Your task to perform on an android device: turn off javascript in the chrome app Image 0: 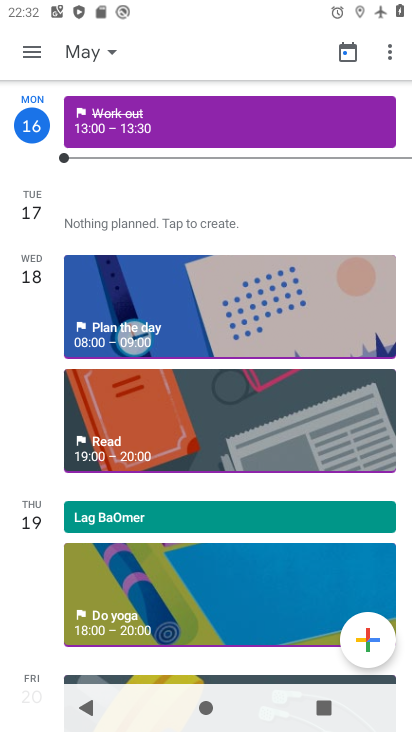
Step 0: press home button
Your task to perform on an android device: turn off javascript in the chrome app Image 1: 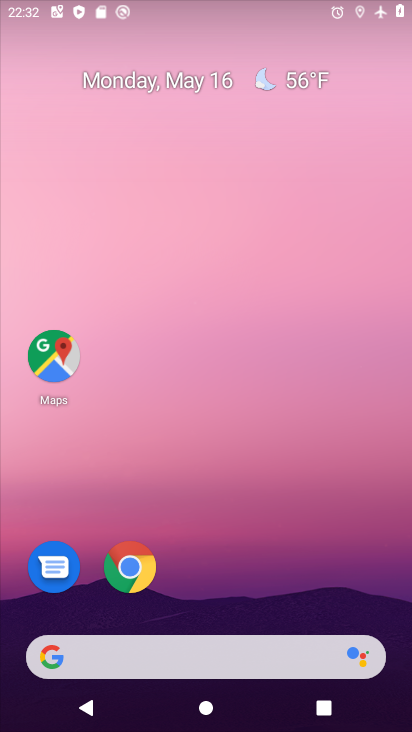
Step 1: drag from (220, 581) to (220, 190)
Your task to perform on an android device: turn off javascript in the chrome app Image 2: 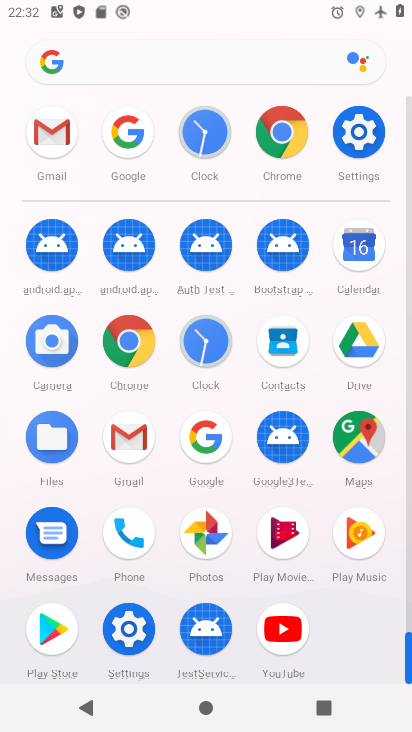
Step 2: click (287, 119)
Your task to perform on an android device: turn off javascript in the chrome app Image 3: 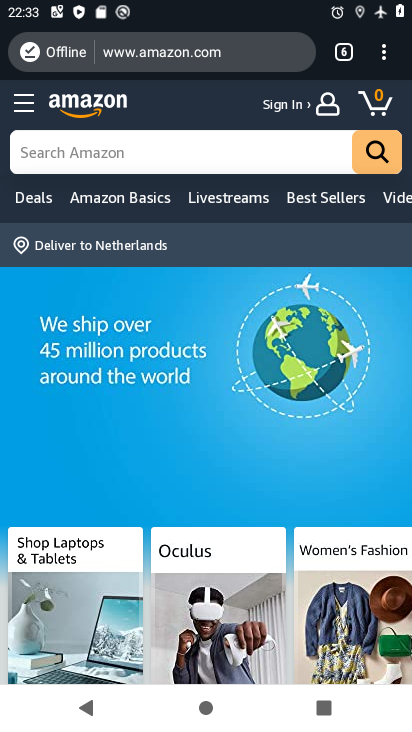
Step 3: click (400, 56)
Your task to perform on an android device: turn off javascript in the chrome app Image 4: 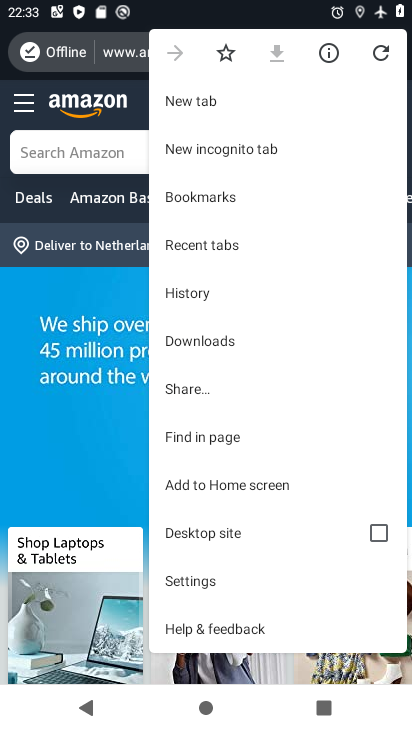
Step 4: click (189, 579)
Your task to perform on an android device: turn off javascript in the chrome app Image 5: 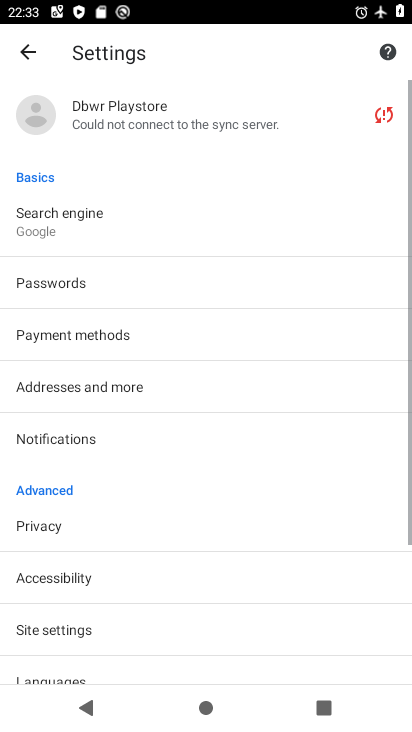
Step 5: drag from (177, 534) to (199, 191)
Your task to perform on an android device: turn off javascript in the chrome app Image 6: 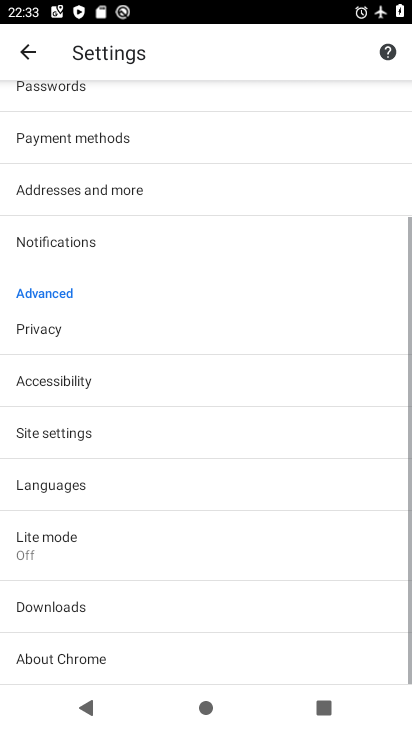
Step 6: click (82, 423)
Your task to perform on an android device: turn off javascript in the chrome app Image 7: 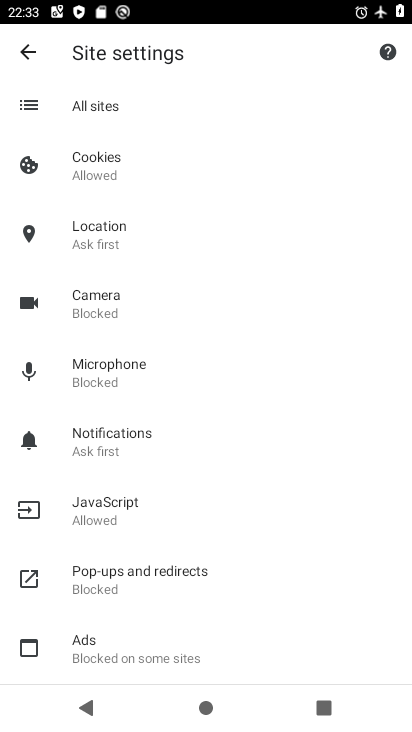
Step 7: click (104, 497)
Your task to perform on an android device: turn off javascript in the chrome app Image 8: 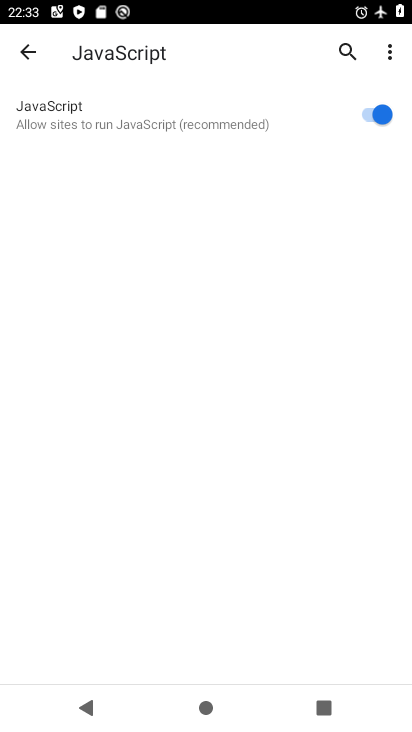
Step 8: click (361, 109)
Your task to perform on an android device: turn off javascript in the chrome app Image 9: 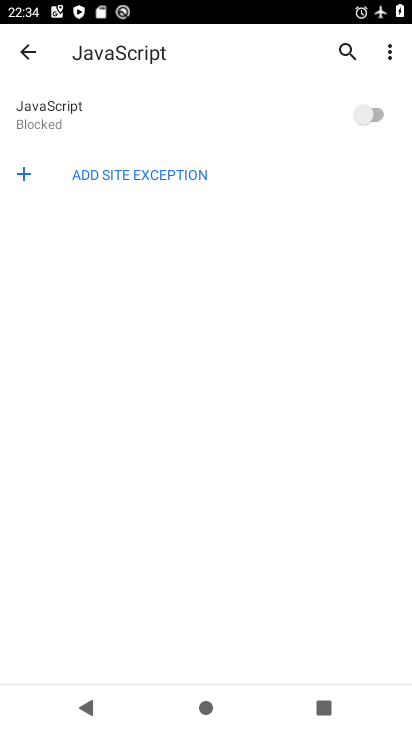
Step 9: task complete